Your task to perform on an android device: Go to sound settings Image 0: 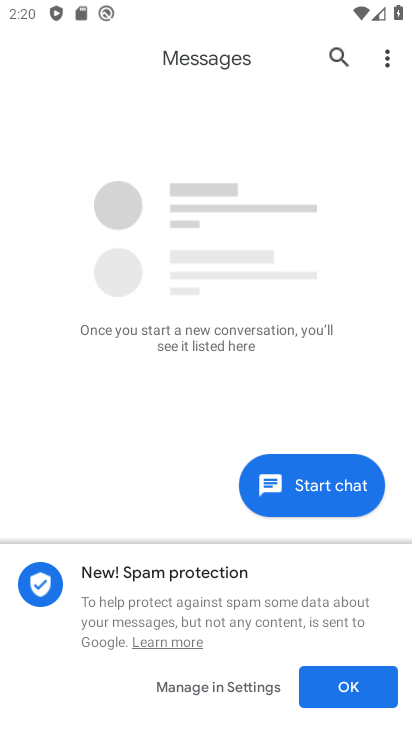
Step 0: press home button
Your task to perform on an android device: Go to sound settings Image 1: 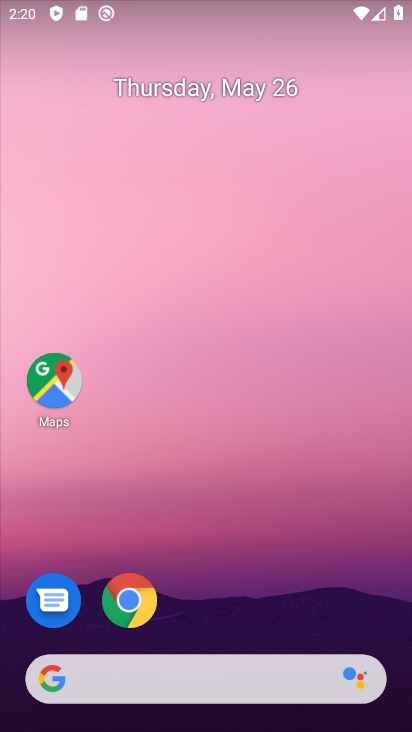
Step 1: drag from (171, 642) to (266, 249)
Your task to perform on an android device: Go to sound settings Image 2: 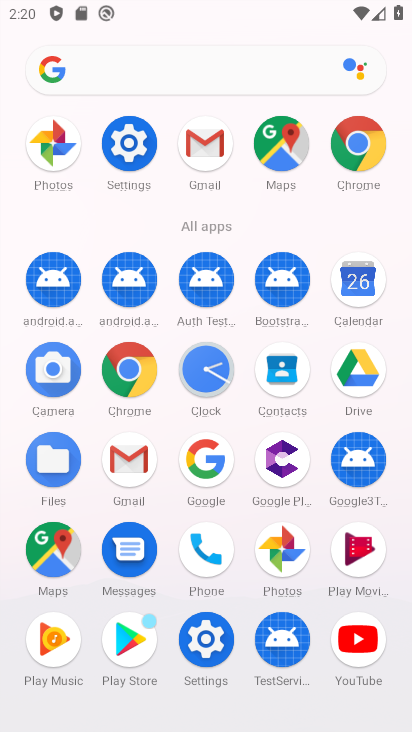
Step 2: click (201, 647)
Your task to perform on an android device: Go to sound settings Image 3: 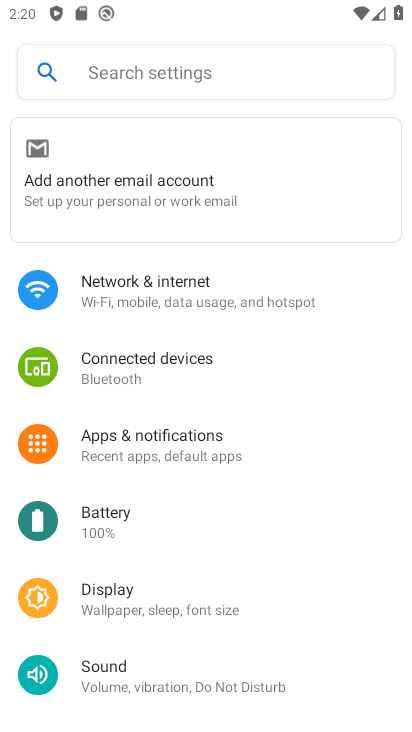
Step 3: click (132, 666)
Your task to perform on an android device: Go to sound settings Image 4: 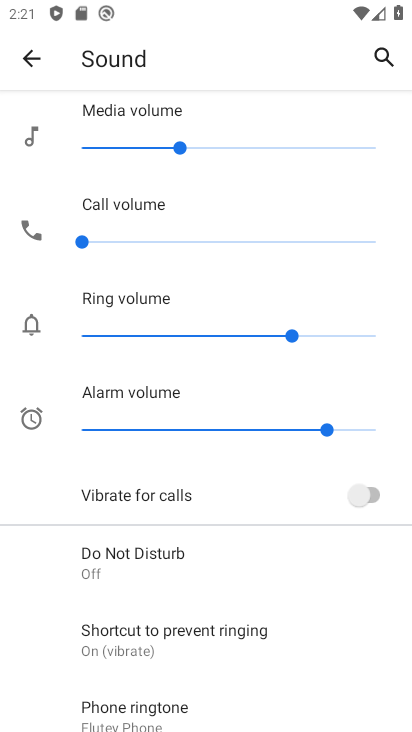
Step 4: task complete